Your task to perform on an android device: Go to eBay Image 0: 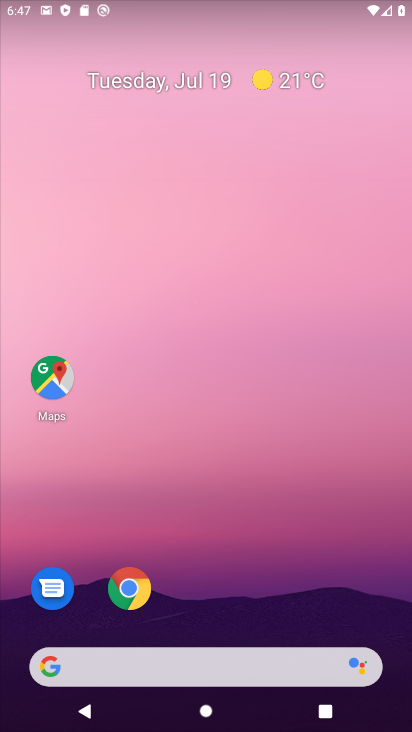
Step 0: drag from (231, 590) to (261, 139)
Your task to perform on an android device: Go to eBay Image 1: 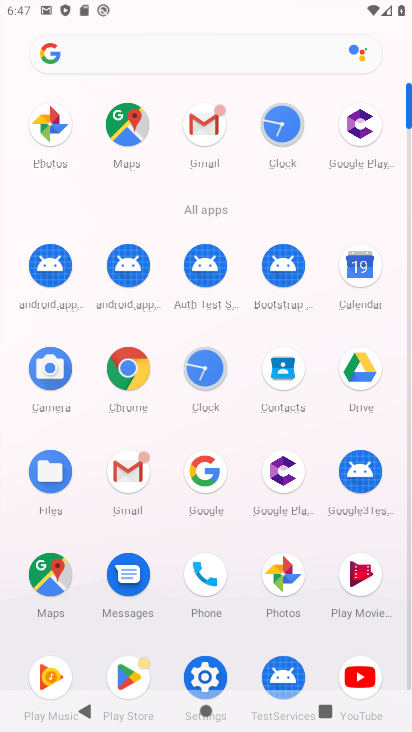
Step 1: click (124, 374)
Your task to perform on an android device: Go to eBay Image 2: 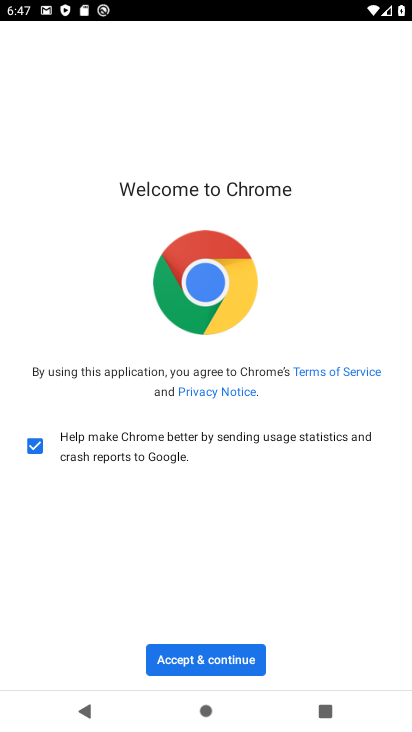
Step 2: click (220, 668)
Your task to perform on an android device: Go to eBay Image 3: 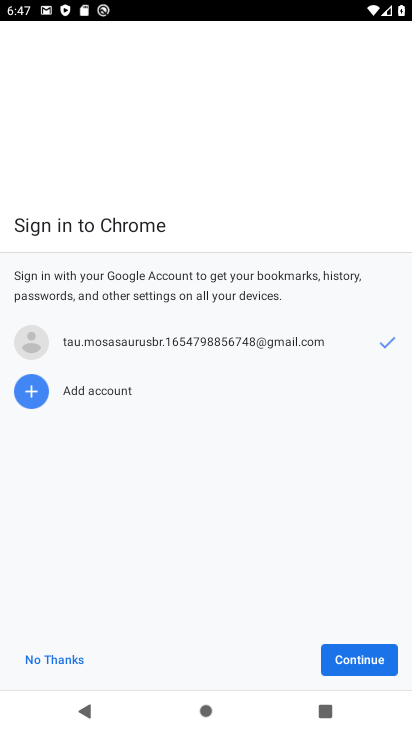
Step 3: click (343, 650)
Your task to perform on an android device: Go to eBay Image 4: 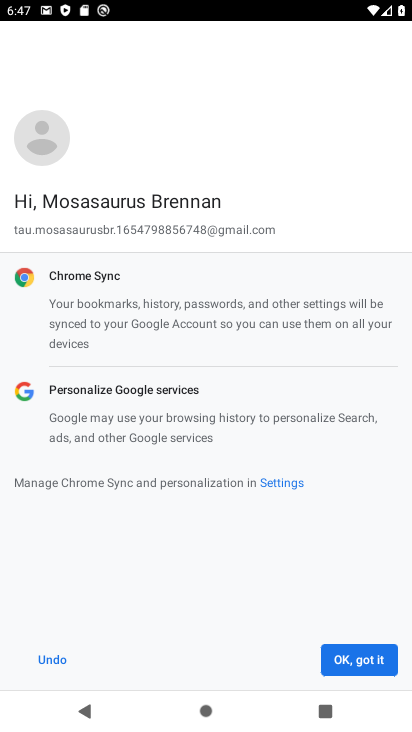
Step 4: click (348, 667)
Your task to perform on an android device: Go to eBay Image 5: 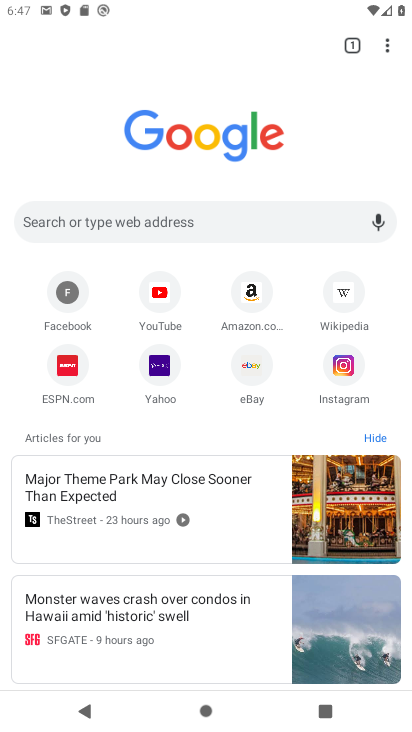
Step 5: click (255, 380)
Your task to perform on an android device: Go to eBay Image 6: 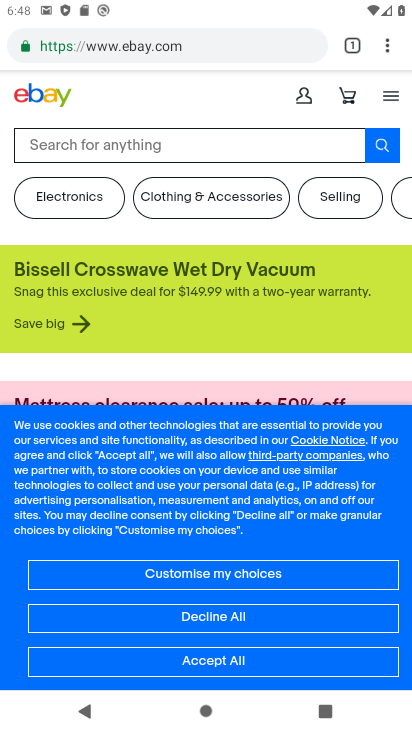
Step 6: task complete